Your task to perform on an android device: Open the calendar app, open the side menu, and click the "Day" option Image 0: 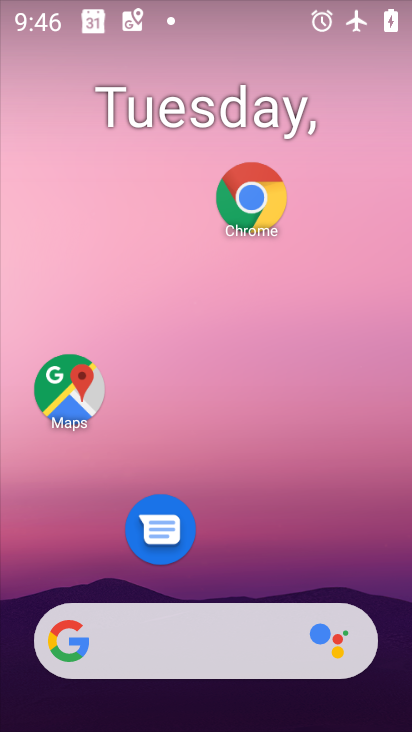
Step 0: drag from (337, 499) to (341, 104)
Your task to perform on an android device: Open the calendar app, open the side menu, and click the "Day" option Image 1: 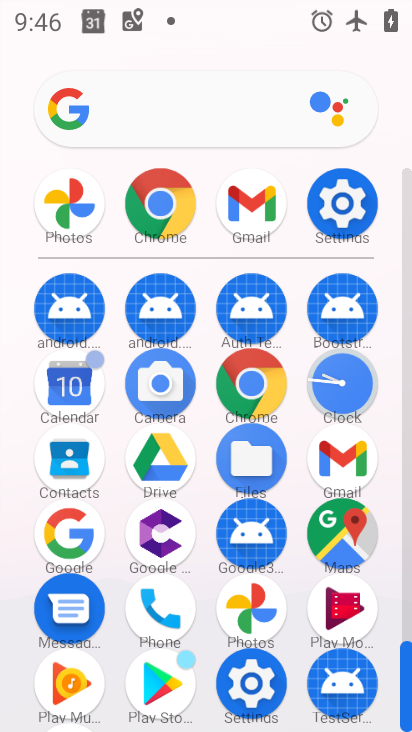
Step 1: click (358, 206)
Your task to perform on an android device: Open the calendar app, open the side menu, and click the "Day" option Image 2: 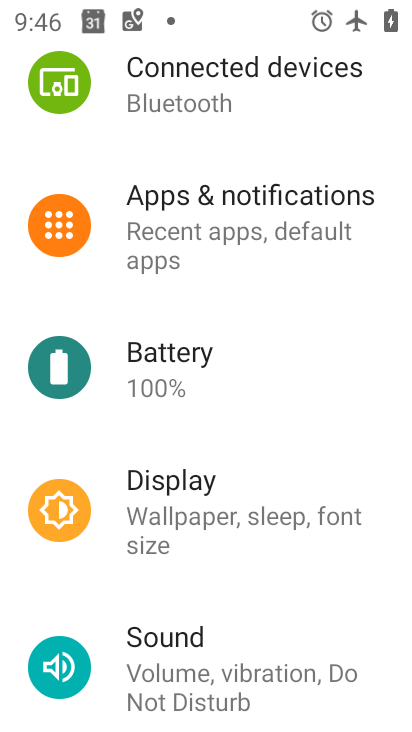
Step 2: press home button
Your task to perform on an android device: Open the calendar app, open the side menu, and click the "Day" option Image 3: 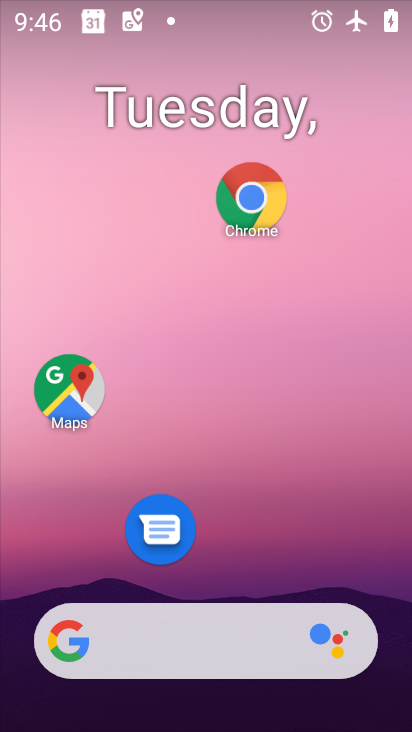
Step 3: drag from (313, 507) to (340, 2)
Your task to perform on an android device: Open the calendar app, open the side menu, and click the "Day" option Image 4: 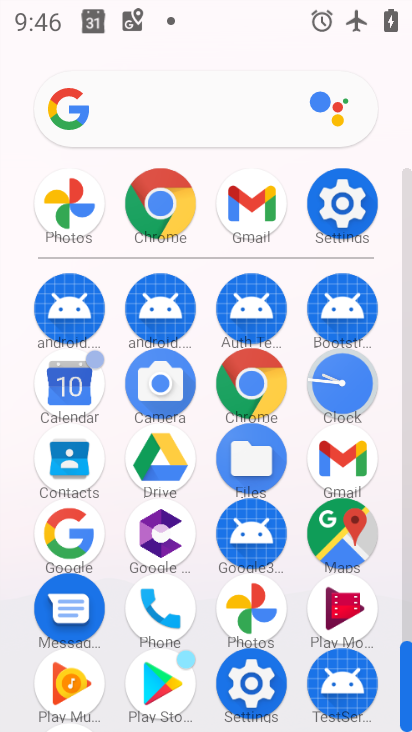
Step 4: click (85, 376)
Your task to perform on an android device: Open the calendar app, open the side menu, and click the "Day" option Image 5: 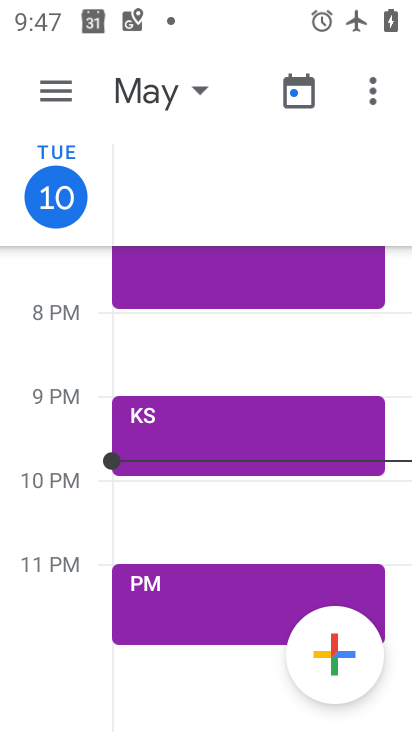
Step 5: click (36, 103)
Your task to perform on an android device: Open the calendar app, open the side menu, and click the "Day" option Image 6: 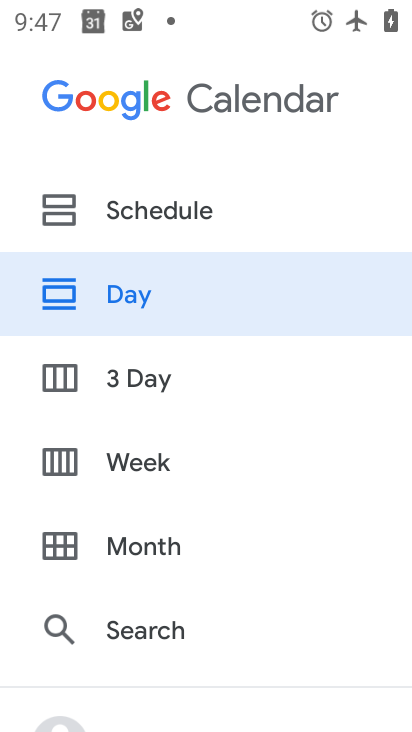
Step 6: click (163, 311)
Your task to perform on an android device: Open the calendar app, open the side menu, and click the "Day" option Image 7: 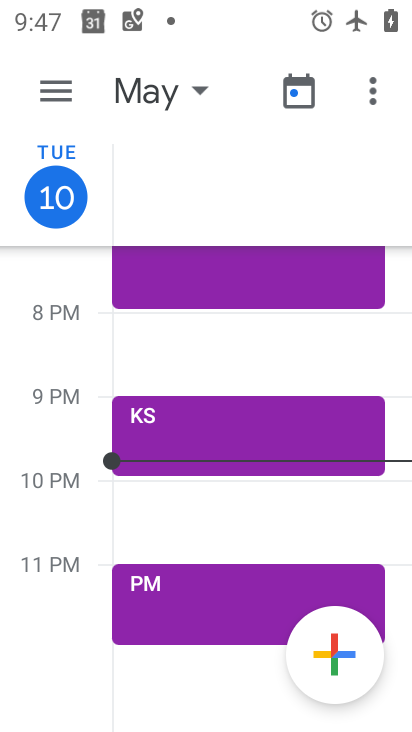
Step 7: task complete